Your task to perform on an android device: Go to notification settings Image 0: 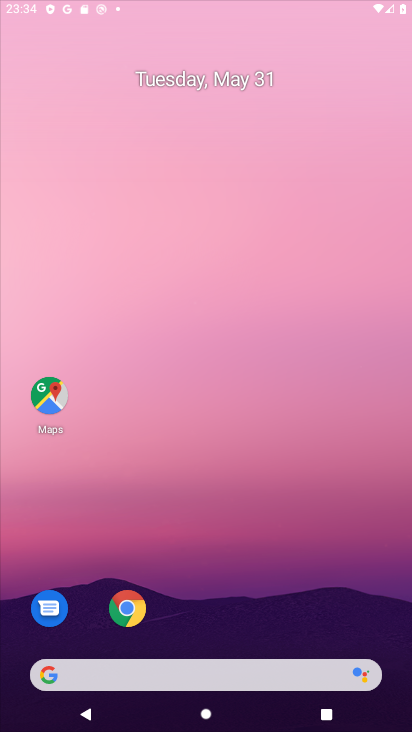
Step 0: drag from (258, 144) to (259, 14)
Your task to perform on an android device: Go to notification settings Image 1: 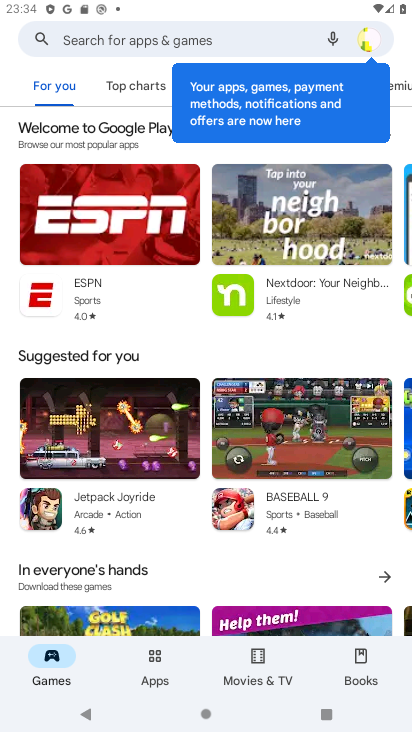
Step 1: press home button
Your task to perform on an android device: Go to notification settings Image 2: 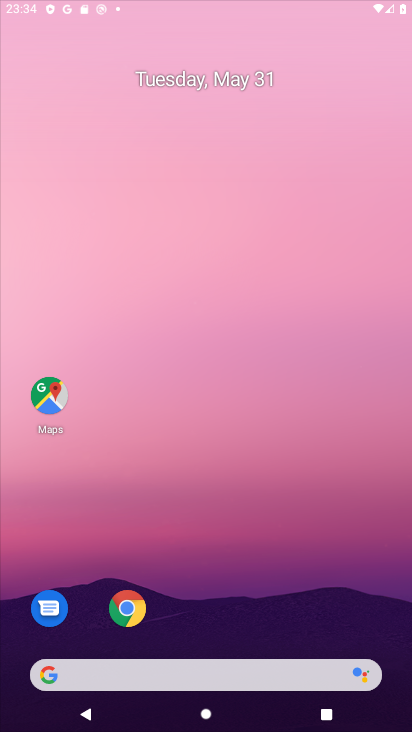
Step 2: drag from (288, 679) to (298, 209)
Your task to perform on an android device: Go to notification settings Image 3: 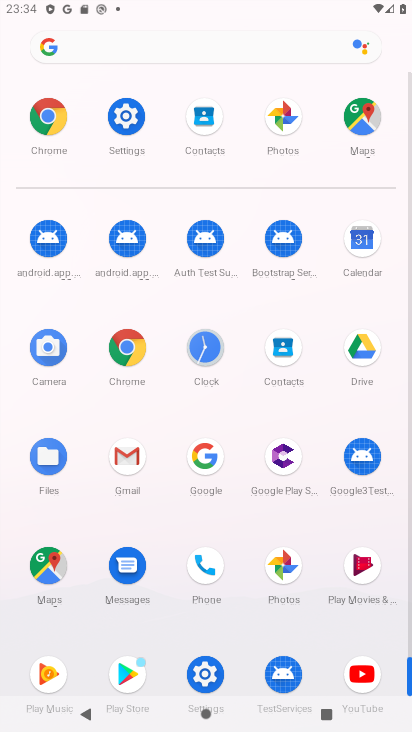
Step 3: click (135, 122)
Your task to perform on an android device: Go to notification settings Image 4: 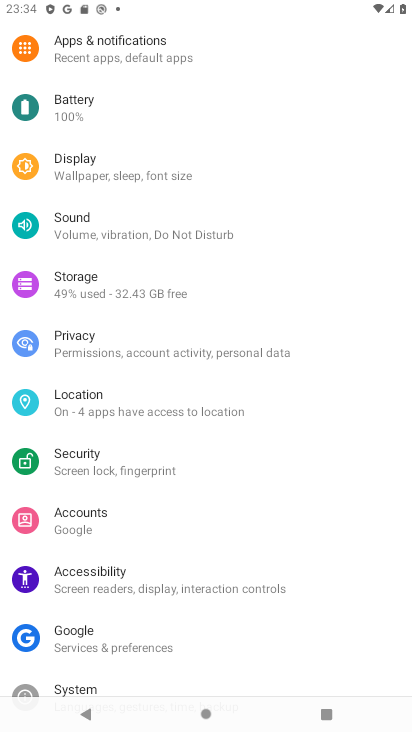
Step 4: drag from (138, 135) to (166, 349)
Your task to perform on an android device: Go to notification settings Image 5: 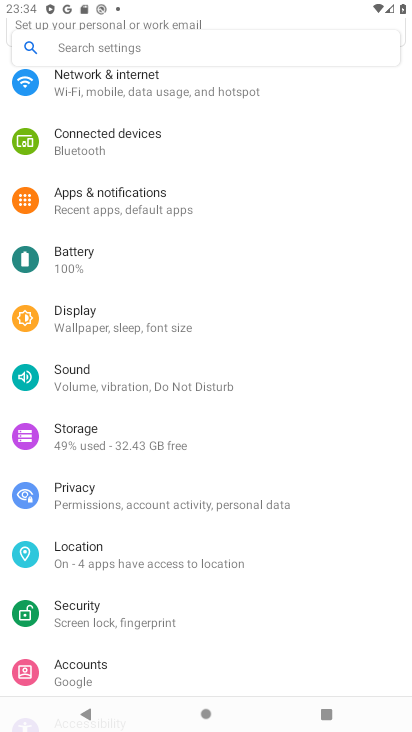
Step 5: click (173, 206)
Your task to perform on an android device: Go to notification settings Image 6: 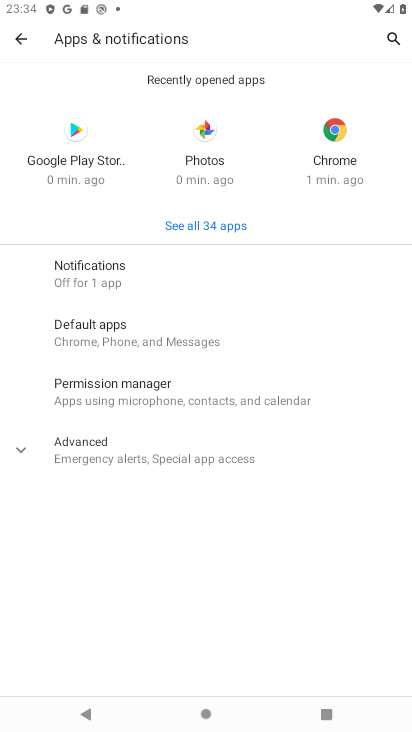
Step 6: task complete